Your task to perform on an android device: turn pop-ups off in chrome Image 0: 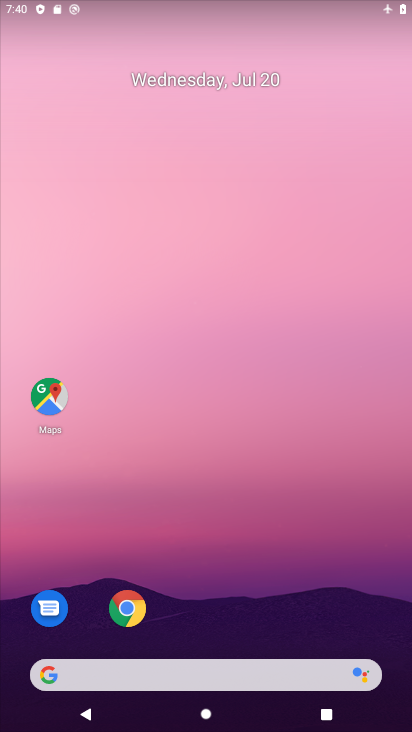
Step 0: drag from (310, 524) to (290, 77)
Your task to perform on an android device: turn pop-ups off in chrome Image 1: 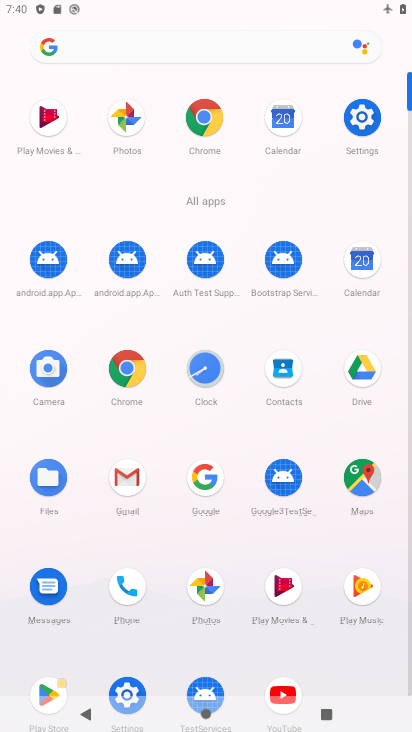
Step 1: click (204, 123)
Your task to perform on an android device: turn pop-ups off in chrome Image 2: 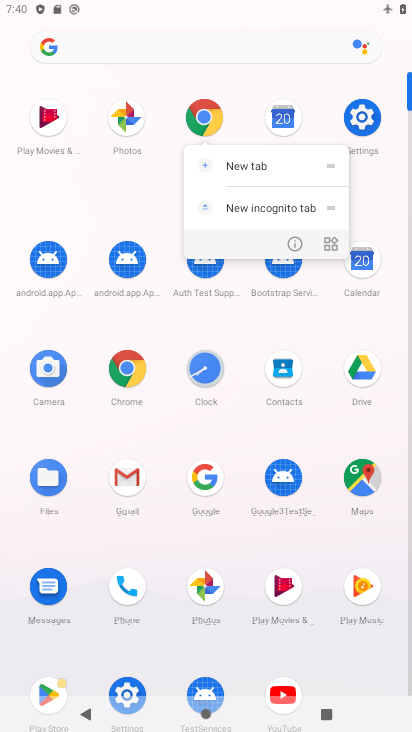
Step 2: click (204, 115)
Your task to perform on an android device: turn pop-ups off in chrome Image 3: 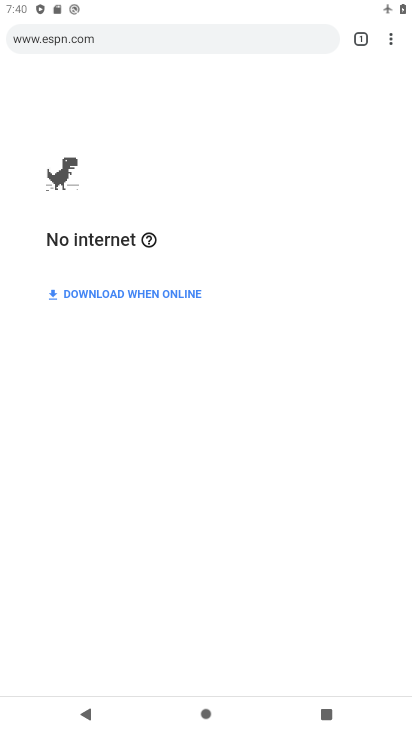
Step 3: click (387, 29)
Your task to perform on an android device: turn pop-ups off in chrome Image 4: 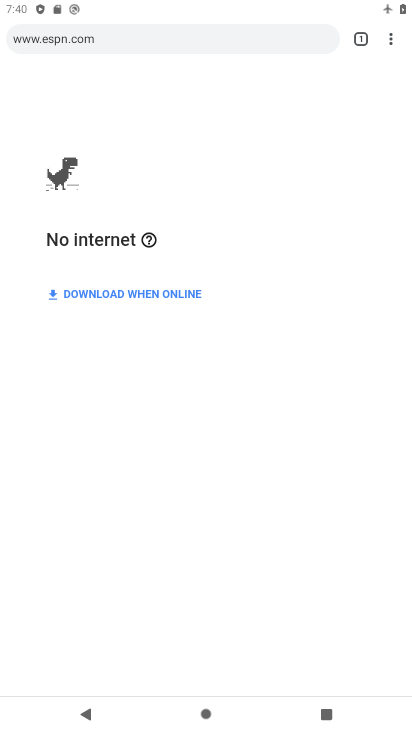
Step 4: drag from (387, 29) to (274, 446)
Your task to perform on an android device: turn pop-ups off in chrome Image 5: 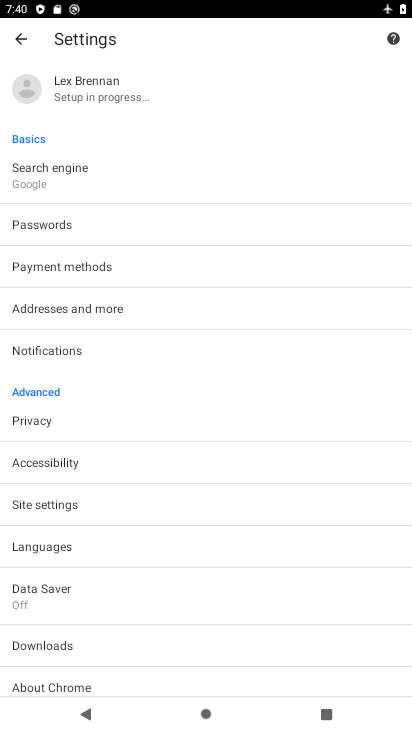
Step 5: click (68, 507)
Your task to perform on an android device: turn pop-ups off in chrome Image 6: 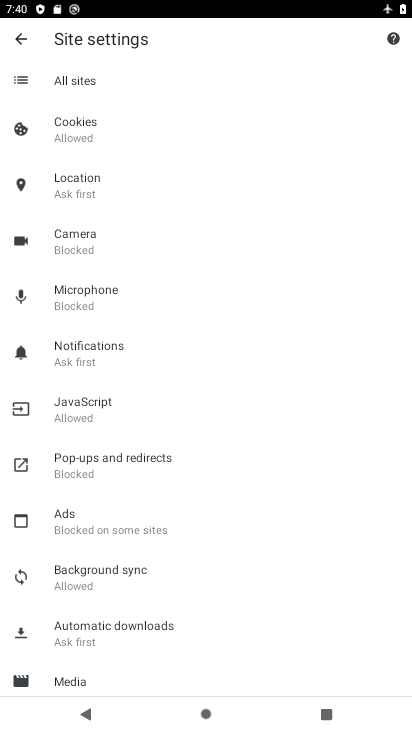
Step 6: click (145, 453)
Your task to perform on an android device: turn pop-ups off in chrome Image 7: 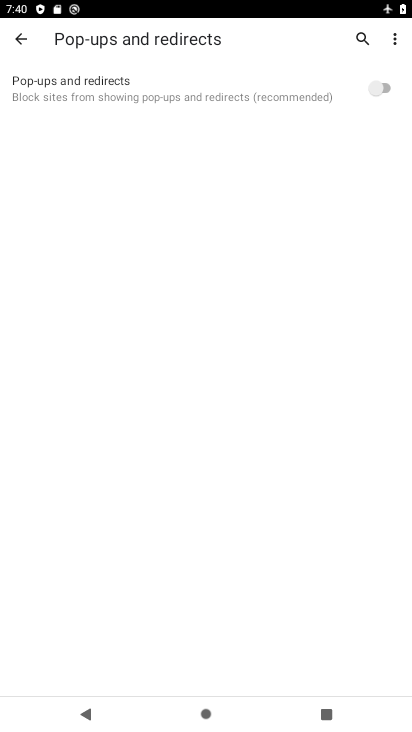
Step 7: task complete